Your task to perform on an android device: Open maps Image 0: 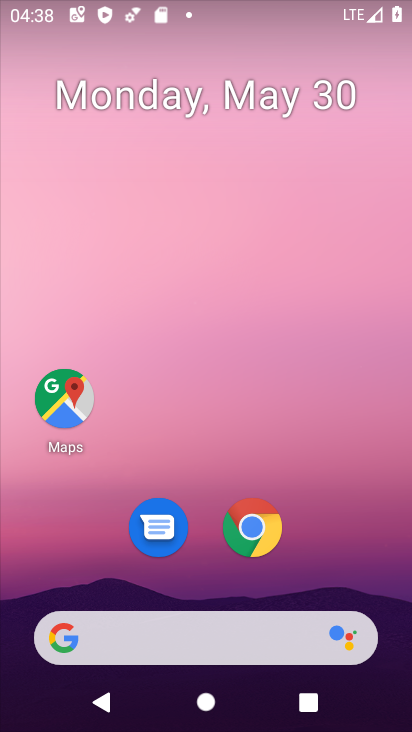
Step 0: drag from (229, 728) to (277, 0)
Your task to perform on an android device: Open maps Image 1: 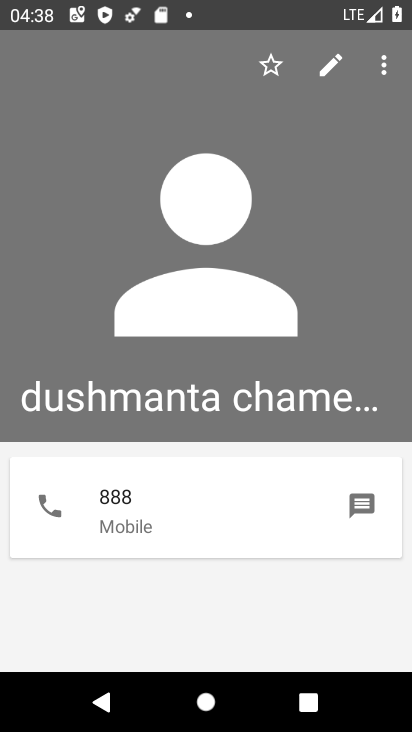
Step 1: press home button
Your task to perform on an android device: Open maps Image 2: 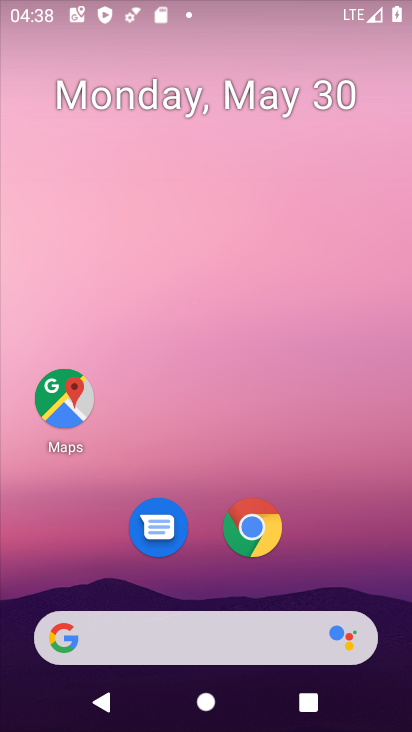
Step 2: drag from (225, 720) to (223, 58)
Your task to perform on an android device: Open maps Image 3: 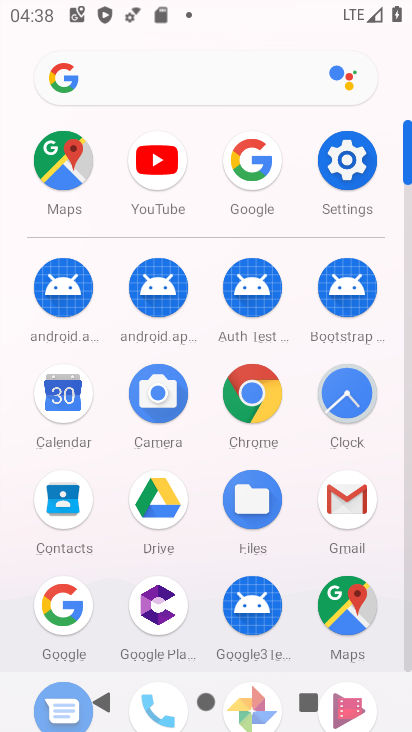
Step 3: click (341, 599)
Your task to perform on an android device: Open maps Image 4: 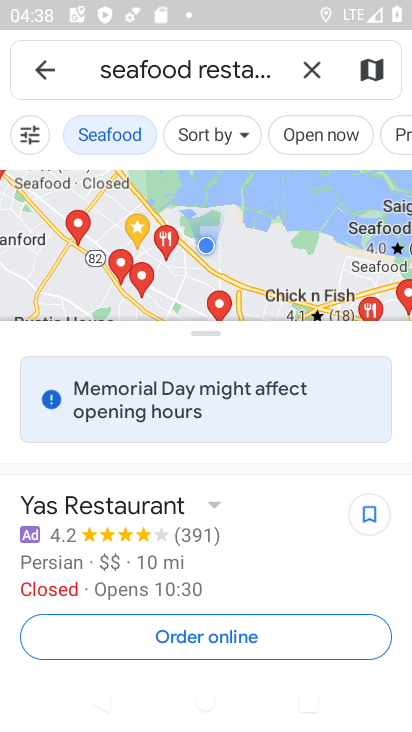
Step 4: task complete